Your task to perform on an android device: Open notification settings Image 0: 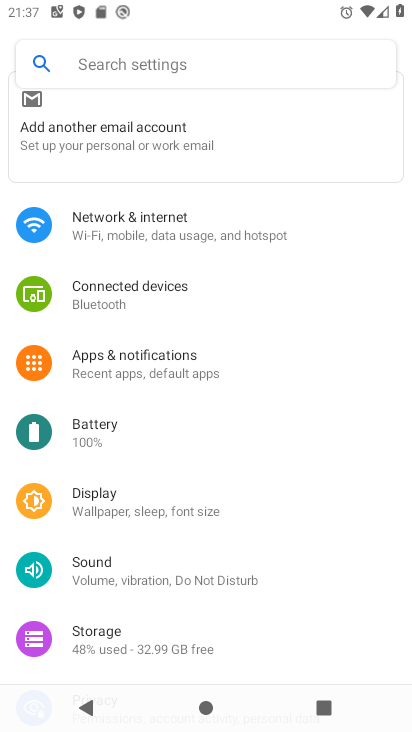
Step 0: click (169, 349)
Your task to perform on an android device: Open notification settings Image 1: 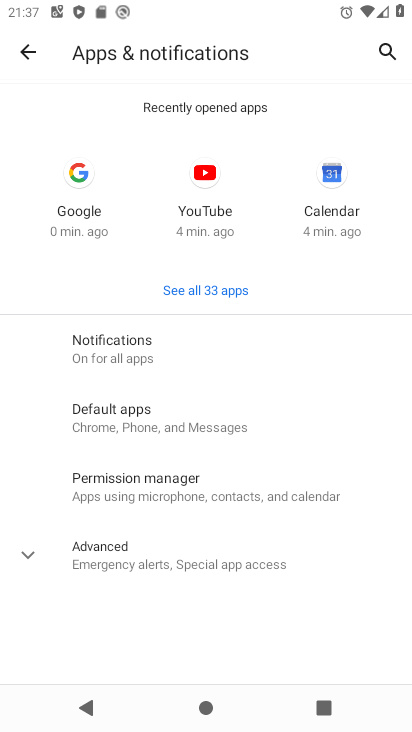
Step 1: click (156, 358)
Your task to perform on an android device: Open notification settings Image 2: 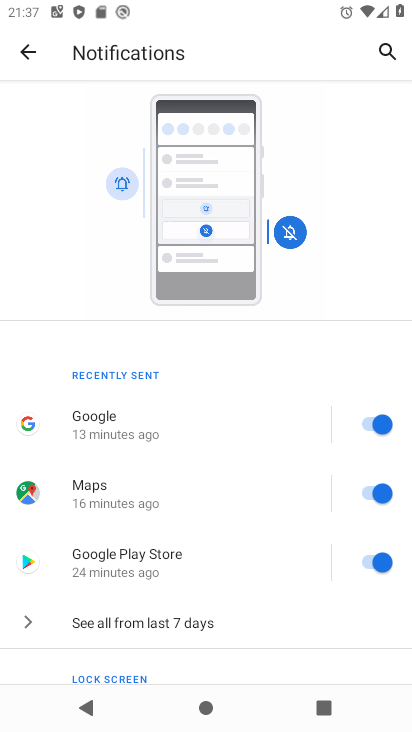
Step 2: task complete